Your task to perform on an android device: Search for Italian restaurants on Maps Image 0: 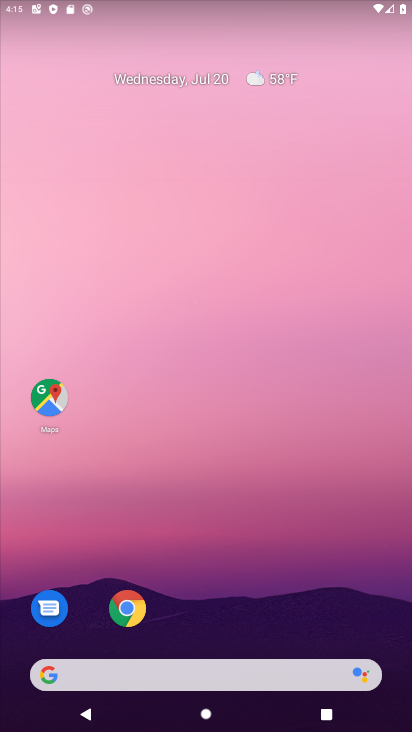
Step 0: drag from (227, 655) to (85, 149)
Your task to perform on an android device: Search for Italian restaurants on Maps Image 1: 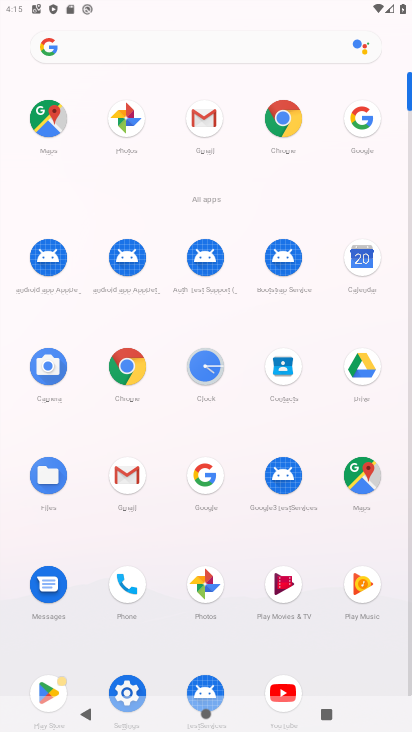
Step 1: click (359, 470)
Your task to perform on an android device: Search for Italian restaurants on Maps Image 2: 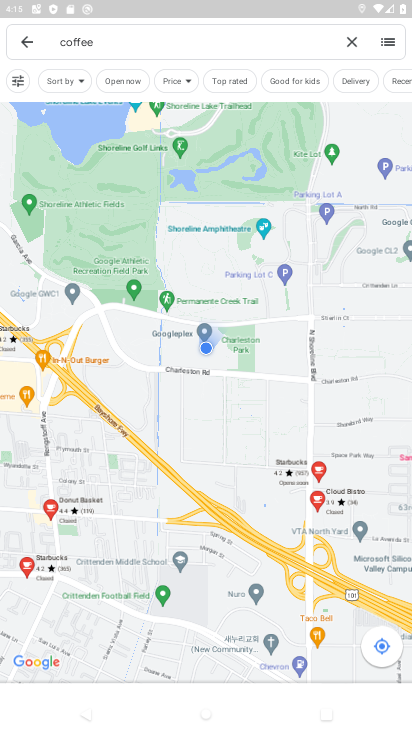
Step 2: click (140, 41)
Your task to perform on an android device: Search for Italian restaurants on Maps Image 3: 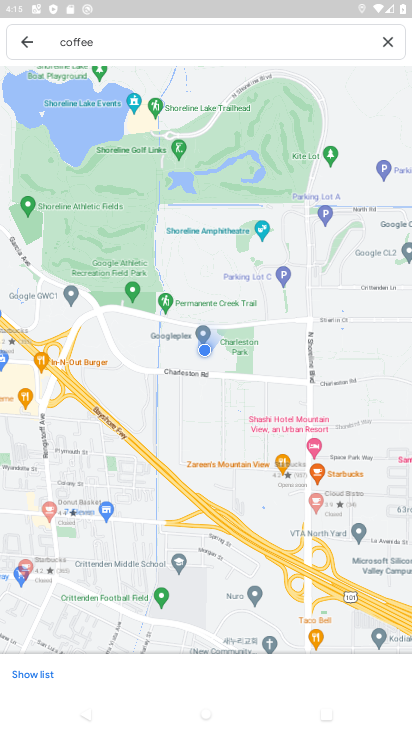
Step 3: click (354, 44)
Your task to perform on an android device: Search for Italian restaurants on Maps Image 4: 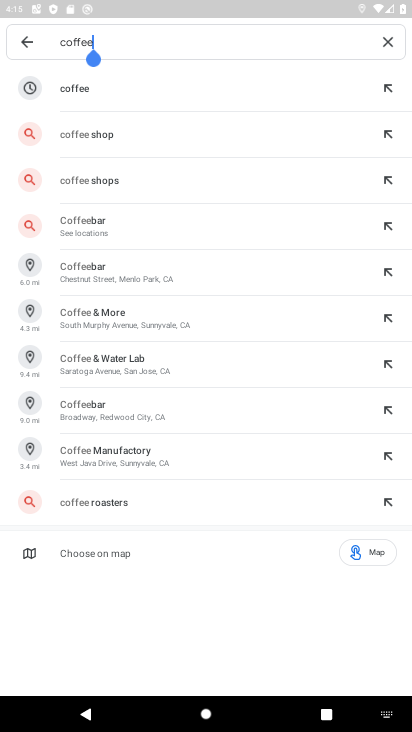
Step 4: click (382, 41)
Your task to perform on an android device: Search for Italian restaurants on Maps Image 5: 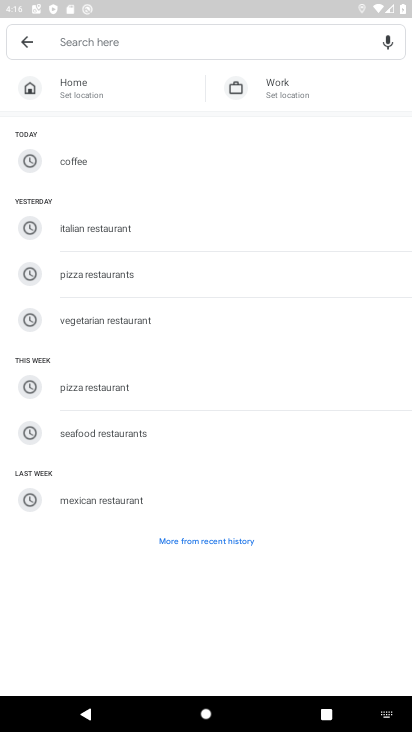
Step 5: click (73, 237)
Your task to perform on an android device: Search for Italian restaurants on Maps Image 6: 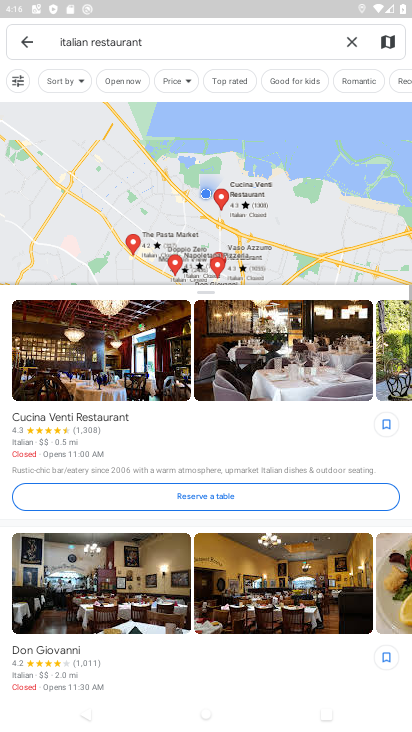
Step 6: task complete